Your task to perform on an android device: manage bookmarks in the chrome app Image 0: 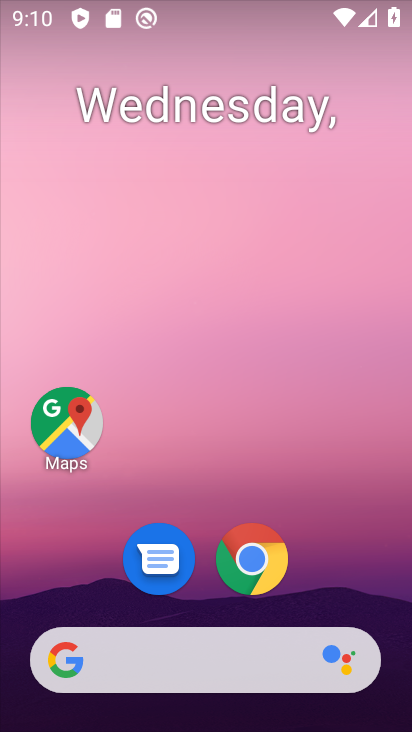
Step 0: click (251, 566)
Your task to perform on an android device: manage bookmarks in the chrome app Image 1: 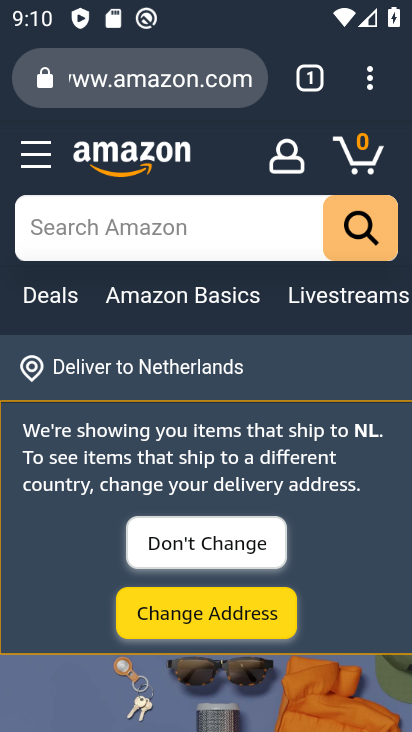
Step 1: click (379, 78)
Your task to perform on an android device: manage bookmarks in the chrome app Image 2: 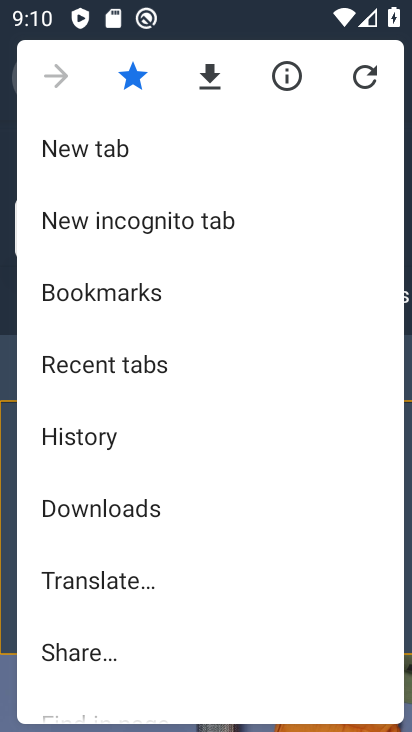
Step 2: click (105, 290)
Your task to perform on an android device: manage bookmarks in the chrome app Image 3: 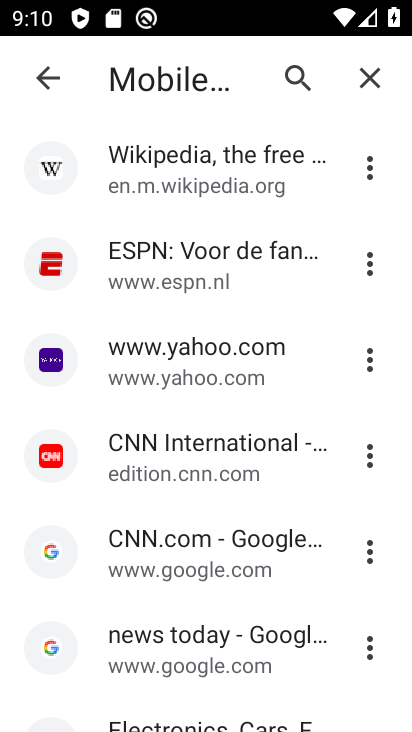
Step 3: click (373, 179)
Your task to perform on an android device: manage bookmarks in the chrome app Image 4: 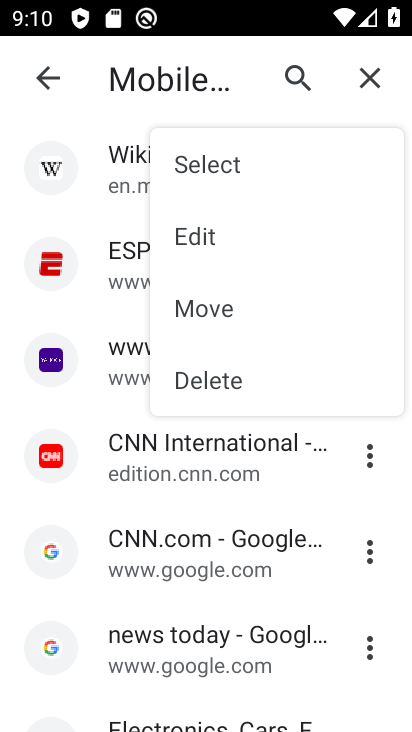
Step 4: click (238, 171)
Your task to perform on an android device: manage bookmarks in the chrome app Image 5: 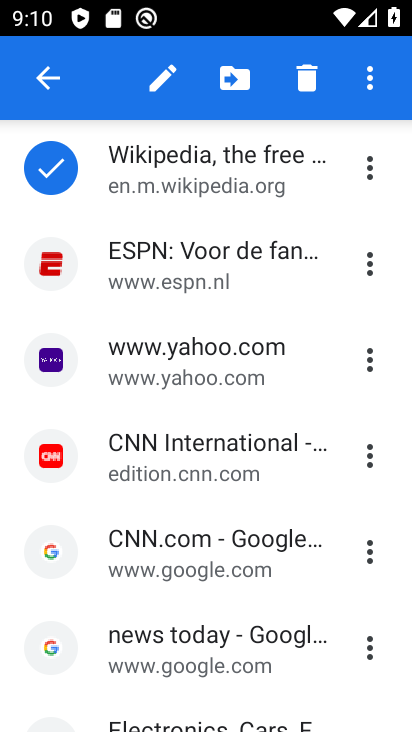
Step 5: click (48, 577)
Your task to perform on an android device: manage bookmarks in the chrome app Image 6: 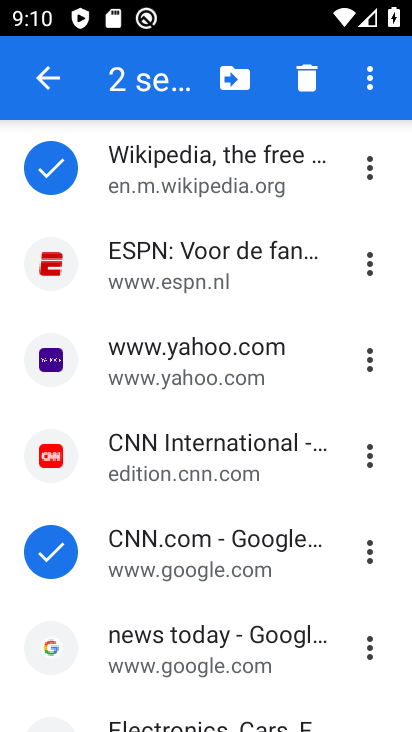
Step 6: click (54, 649)
Your task to perform on an android device: manage bookmarks in the chrome app Image 7: 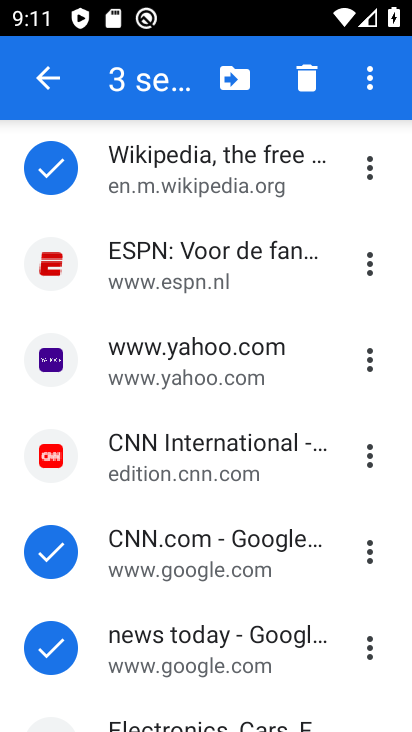
Step 7: click (60, 164)
Your task to perform on an android device: manage bookmarks in the chrome app Image 8: 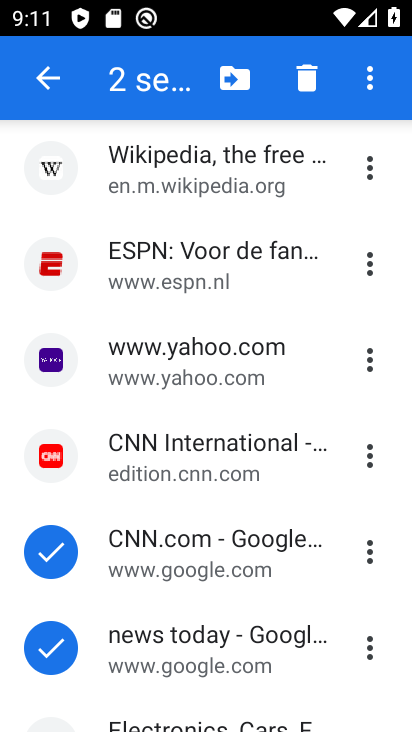
Step 8: click (306, 72)
Your task to perform on an android device: manage bookmarks in the chrome app Image 9: 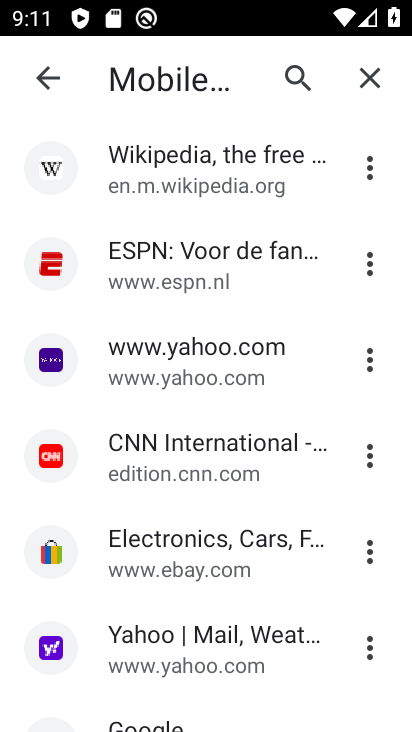
Step 9: task complete